Your task to perform on an android device: clear history in the chrome app Image 0: 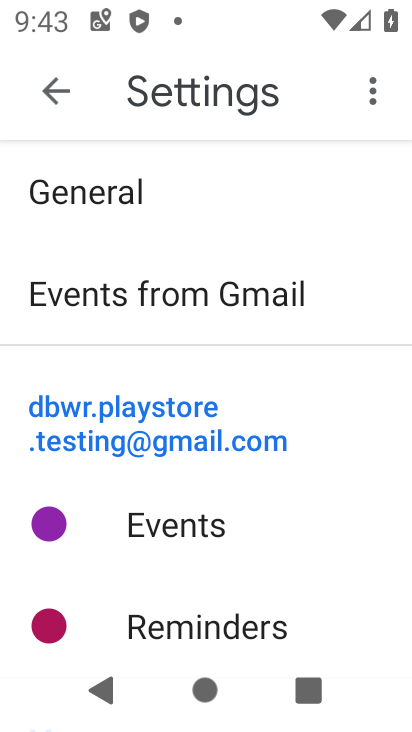
Step 0: press back button
Your task to perform on an android device: clear history in the chrome app Image 1: 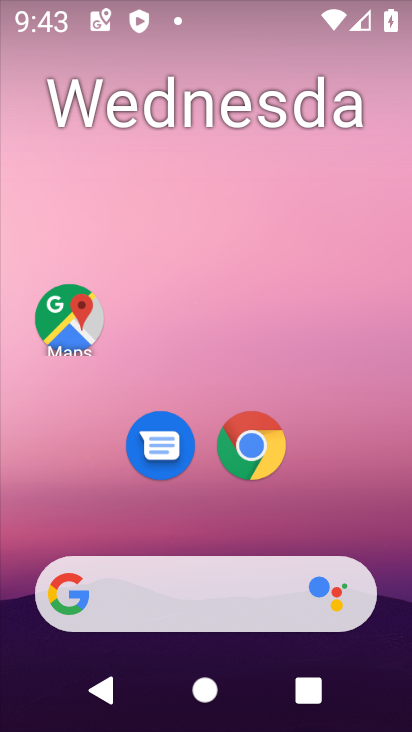
Step 1: click (234, 444)
Your task to perform on an android device: clear history in the chrome app Image 2: 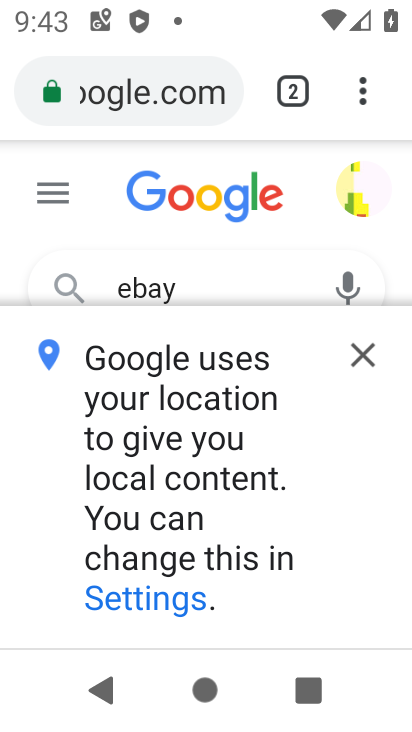
Step 2: click (361, 340)
Your task to perform on an android device: clear history in the chrome app Image 3: 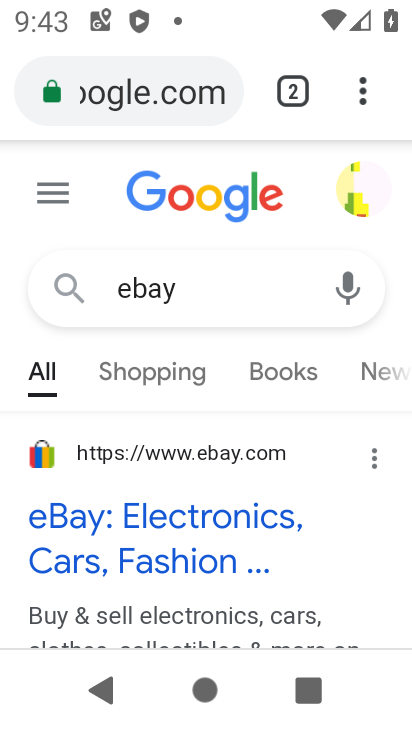
Step 3: click (357, 89)
Your task to perform on an android device: clear history in the chrome app Image 4: 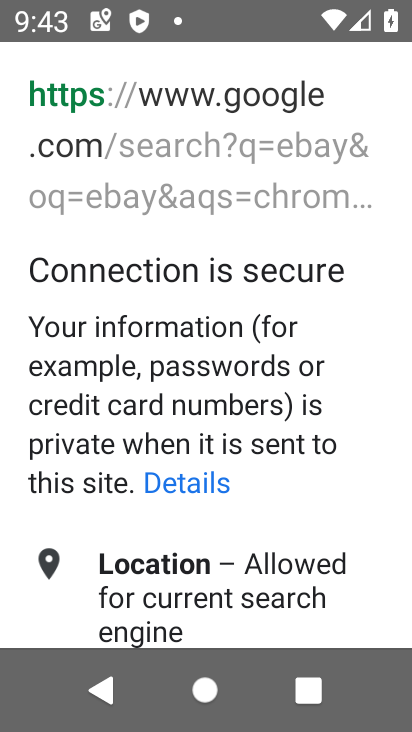
Step 4: press back button
Your task to perform on an android device: clear history in the chrome app Image 5: 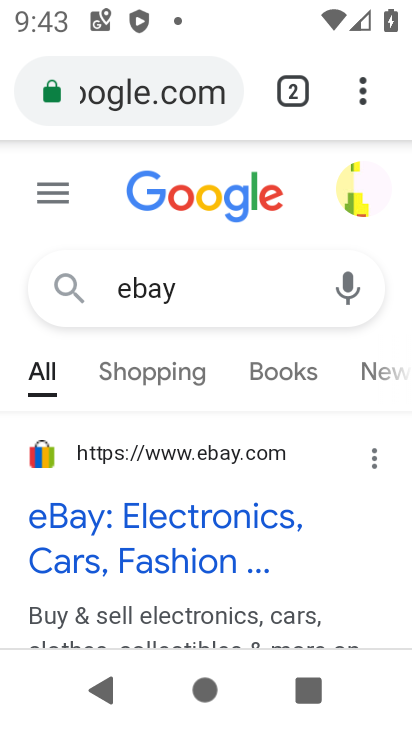
Step 5: drag from (367, 83) to (123, 510)
Your task to perform on an android device: clear history in the chrome app Image 6: 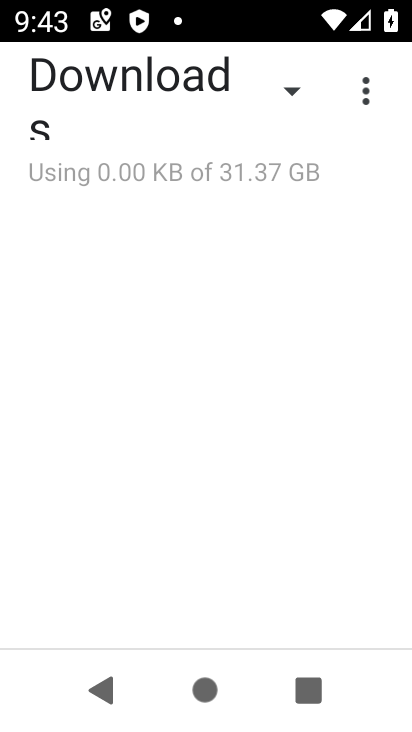
Step 6: press back button
Your task to perform on an android device: clear history in the chrome app Image 7: 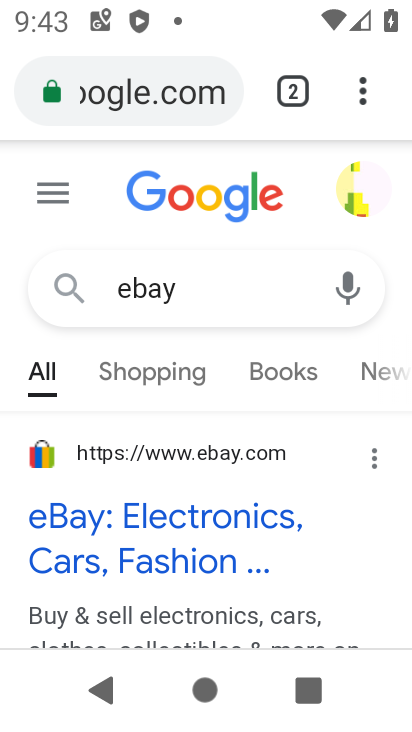
Step 7: drag from (363, 84) to (120, 485)
Your task to perform on an android device: clear history in the chrome app Image 8: 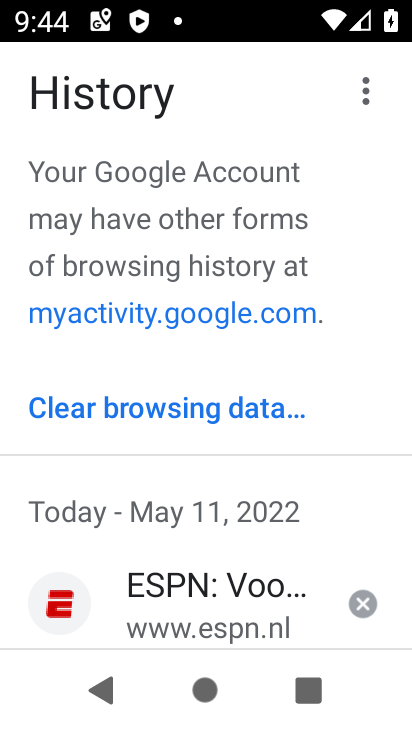
Step 8: click (119, 421)
Your task to perform on an android device: clear history in the chrome app Image 9: 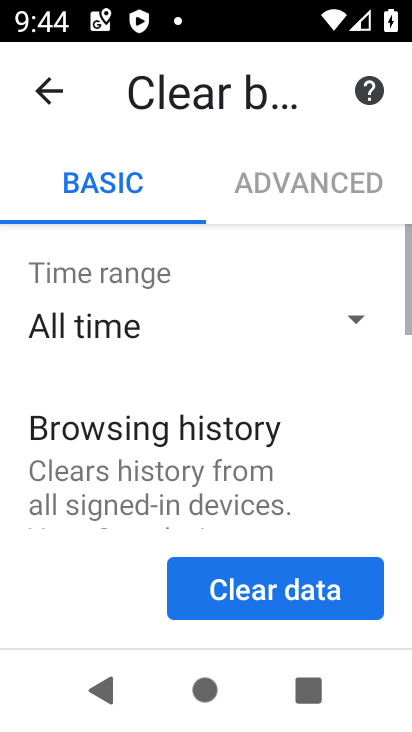
Step 9: click (256, 585)
Your task to perform on an android device: clear history in the chrome app Image 10: 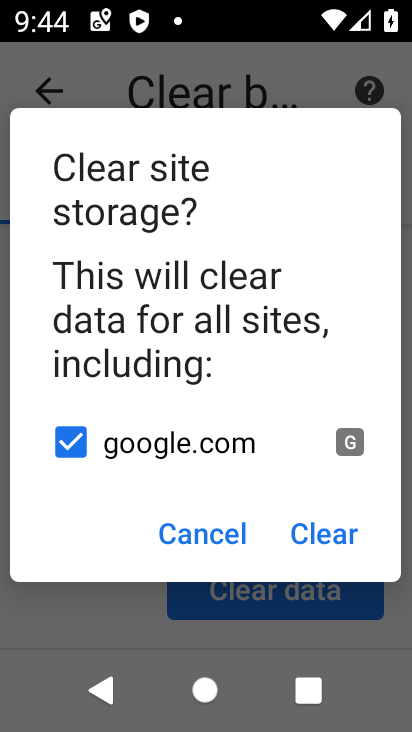
Step 10: click (344, 530)
Your task to perform on an android device: clear history in the chrome app Image 11: 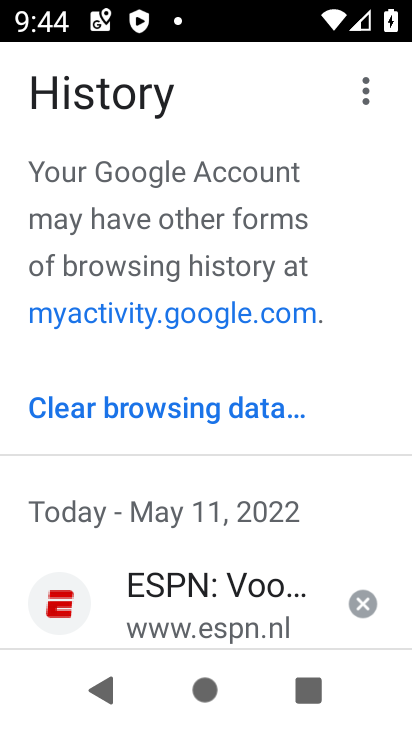
Step 11: task complete